Your task to perform on an android device: Open location settings Image 0: 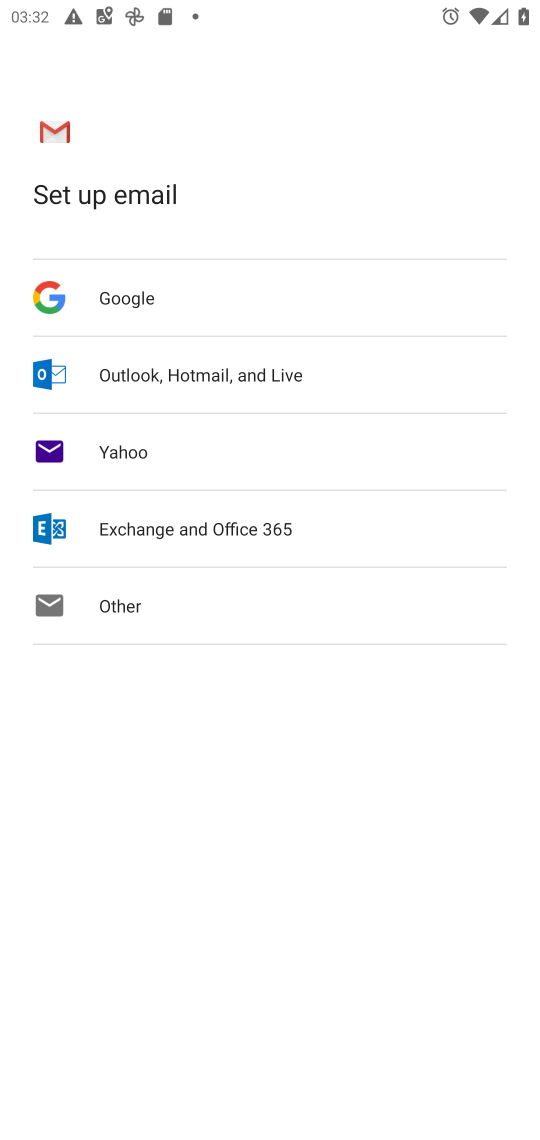
Step 0: press home button
Your task to perform on an android device: Open location settings Image 1: 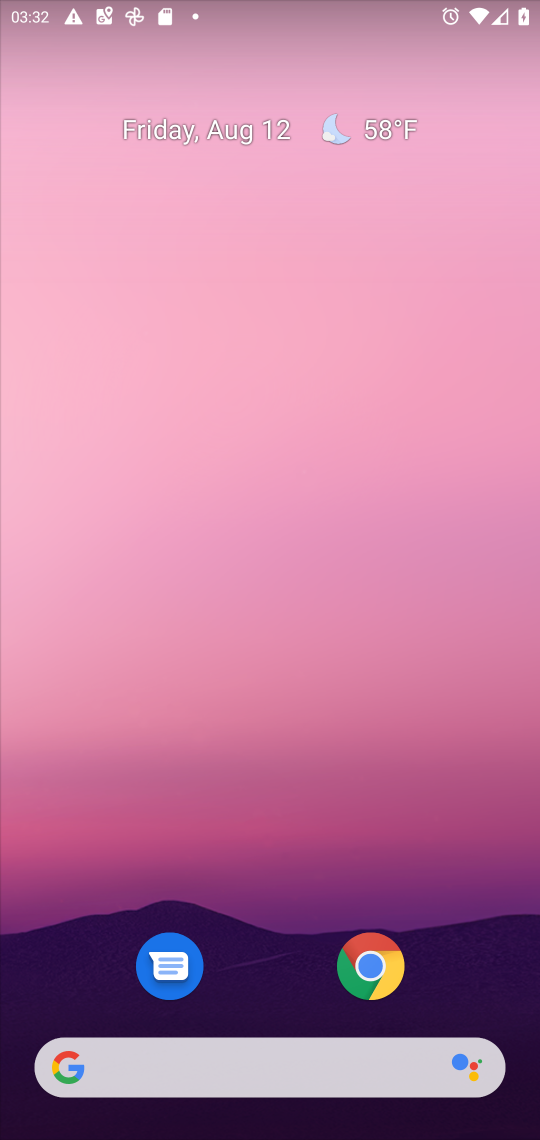
Step 1: drag from (252, 905) to (260, 57)
Your task to perform on an android device: Open location settings Image 2: 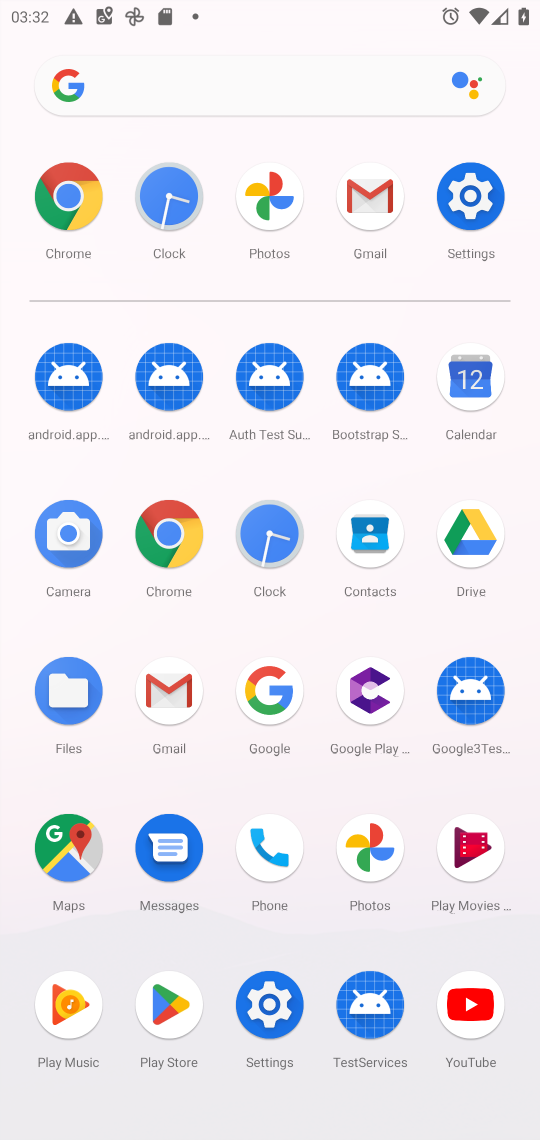
Step 2: click (275, 996)
Your task to perform on an android device: Open location settings Image 3: 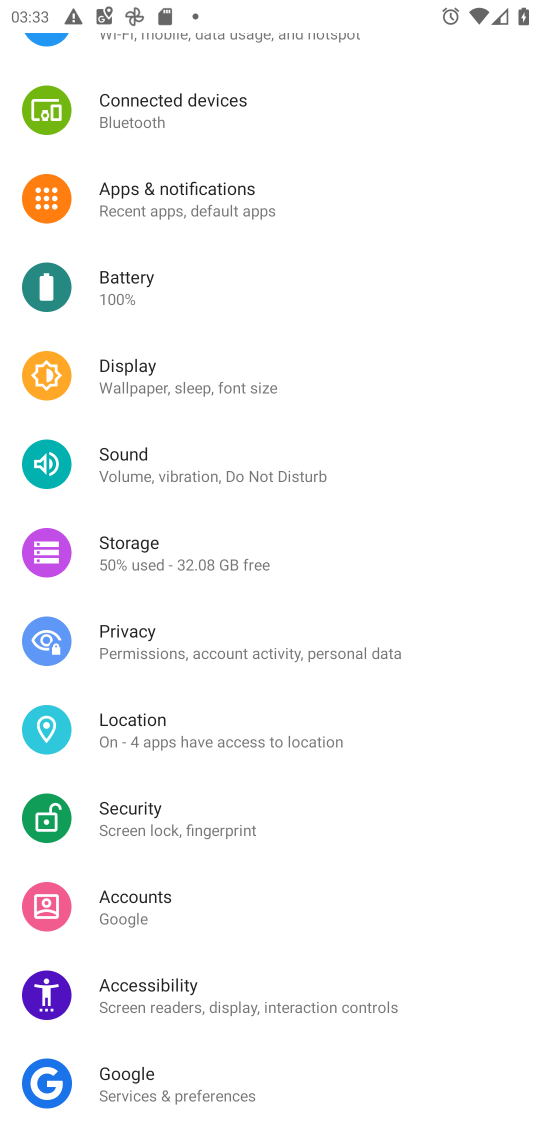
Step 3: click (154, 735)
Your task to perform on an android device: Open location settings Image 4: 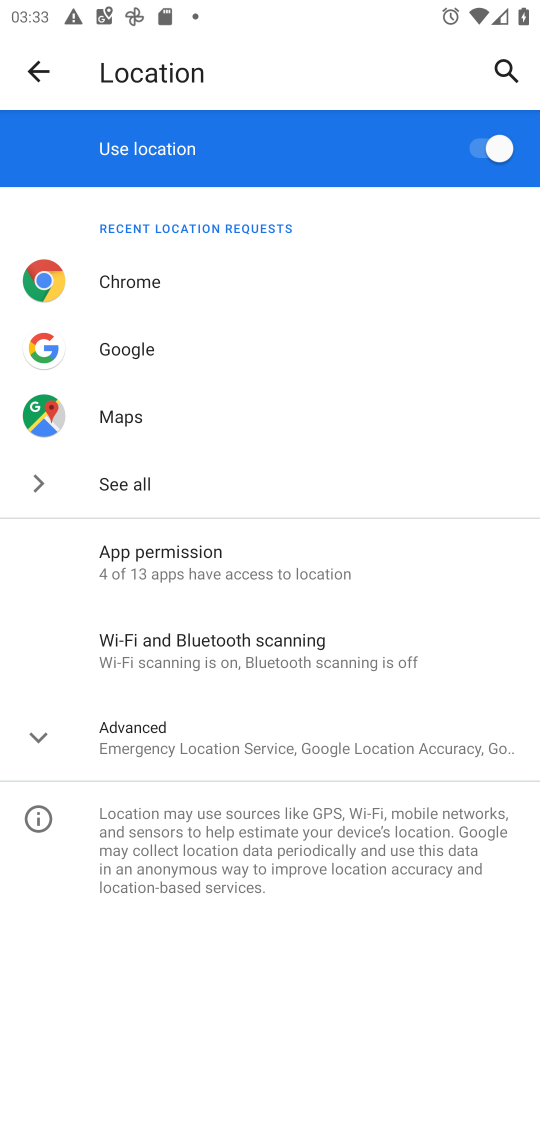
Step 4: task complete